Your task to perform on an android device: Go to ESPN.com Image 0: 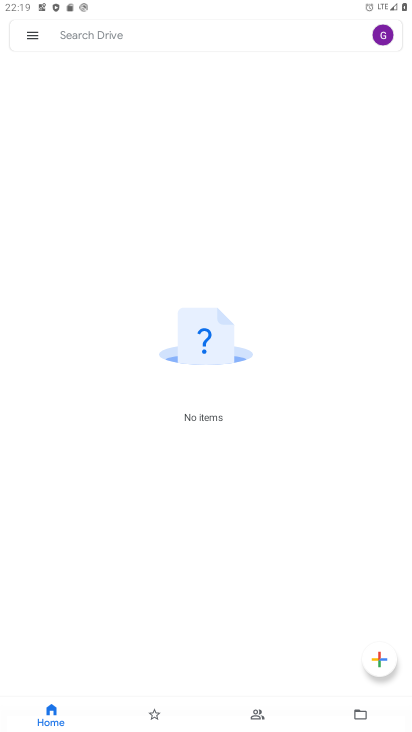
Step 0: press home button
Your task to perform on an android device: Go to ESPN.com Image 1: 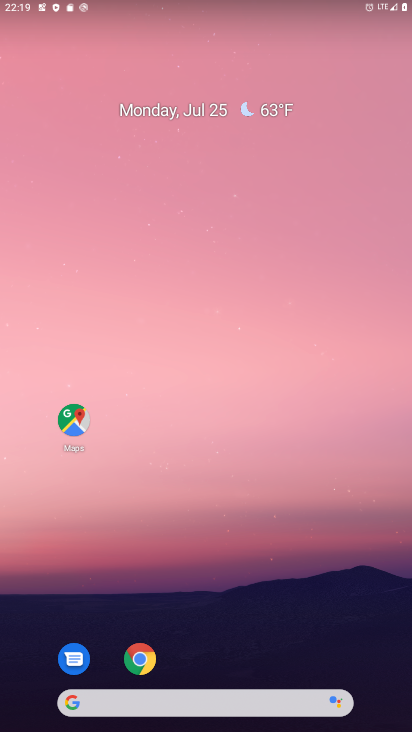
Step 1: click (140, 659)
Your task to perform on an android device: Go to ESPN.com Image 2: 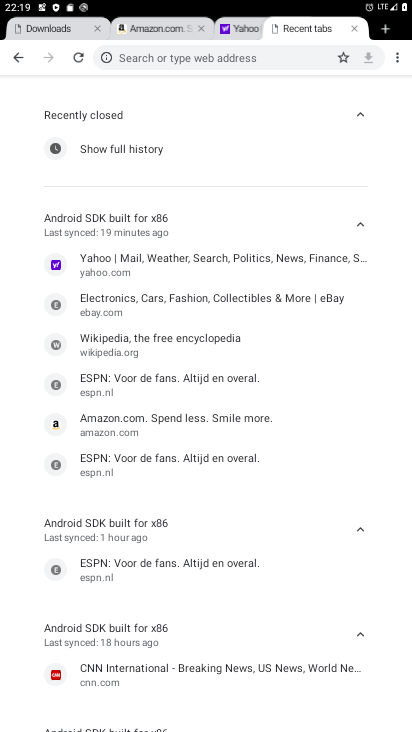
Step 2: click (398, 55)
Your task to perform on an android device: Go to ESPN.com Image 3: 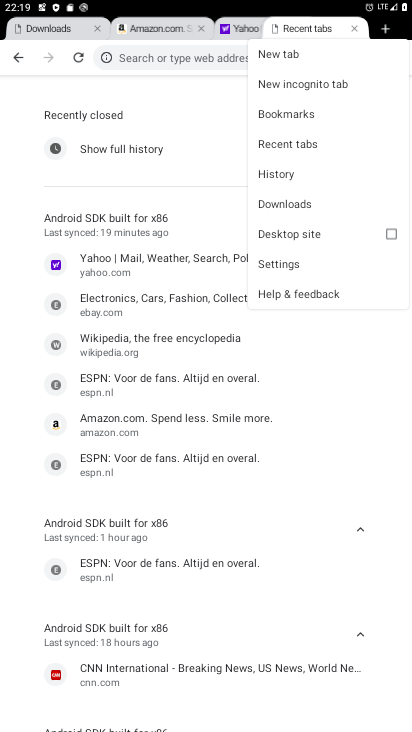
Step 3: click (282, 51)
Your task to perform on an android device: Go to ESPN.com Image 4: 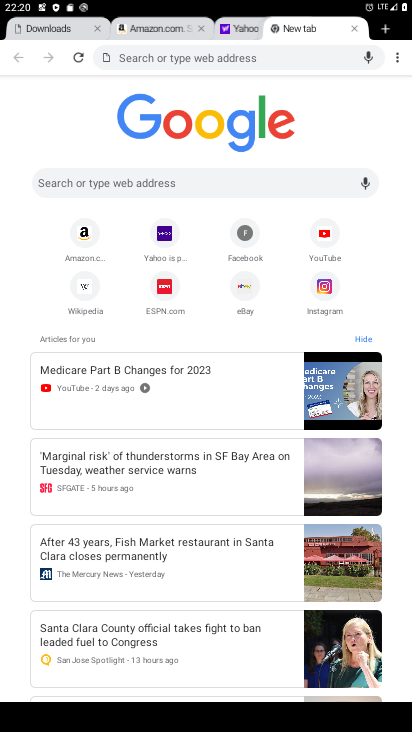
Step 4: click (163, 289)
Your task to perform on an android device: Go to ESPN.com Image 5: 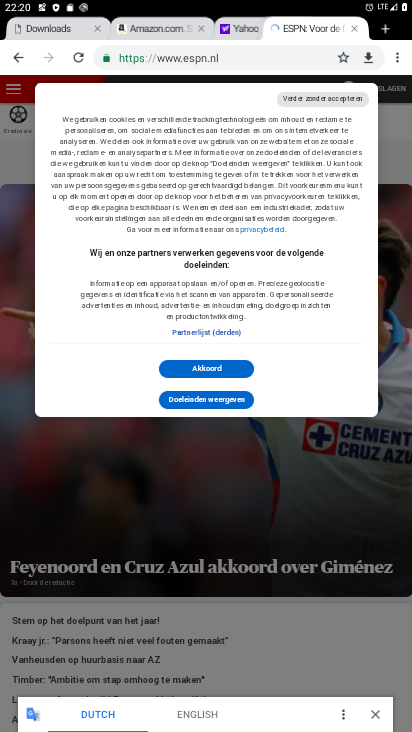
Step 5: click (212, 367)
Your task to perform on an android device: Go to ESPN.com Image 6: 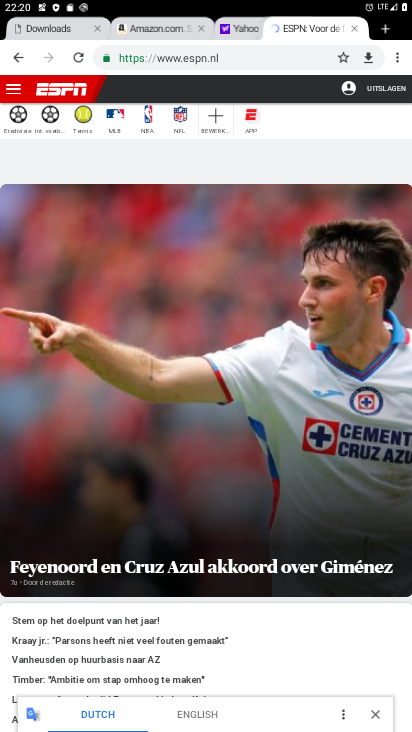
Step 6: task complete